Your task to perform on an android device: visit the assistant section in the google photos Image 0: 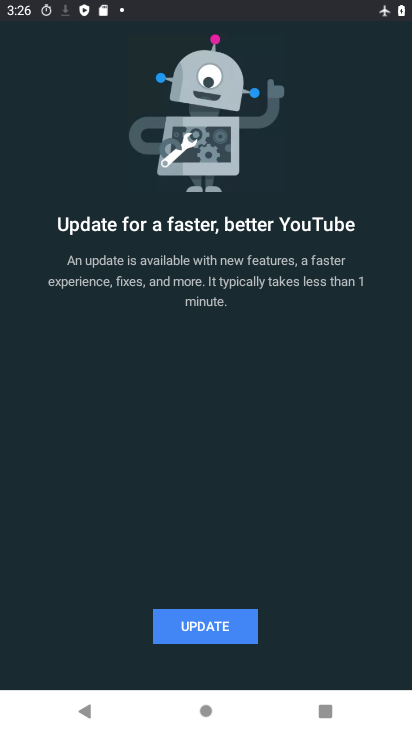
Step 0: press back button
Your task to perform on an android device: visit the assistant section in the google photos Image 1: 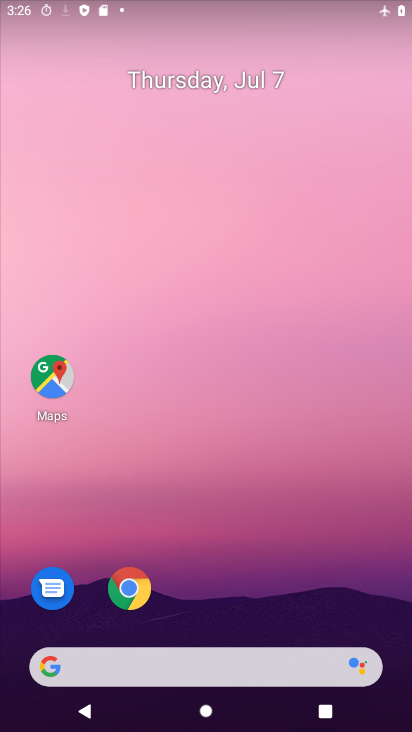
Step 1: drag from (297, 679) to (149, 0)
Your task to perform on an android device: visit the assistant section in the google photos Image 2: 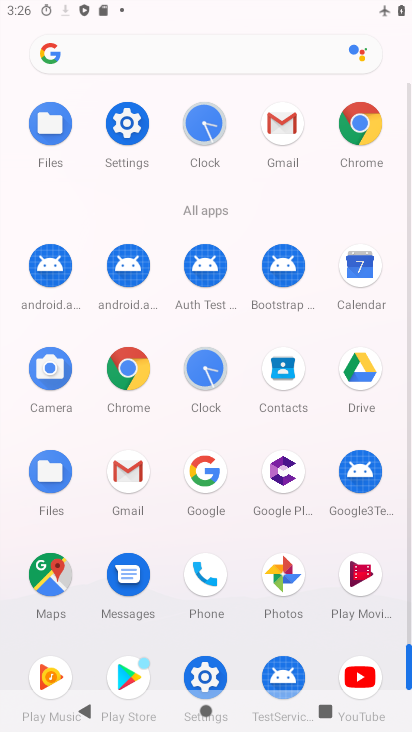
Step 2: click (280, 571)
Your task to perform on an android device: visit the assistant section in the google photos Image 3: 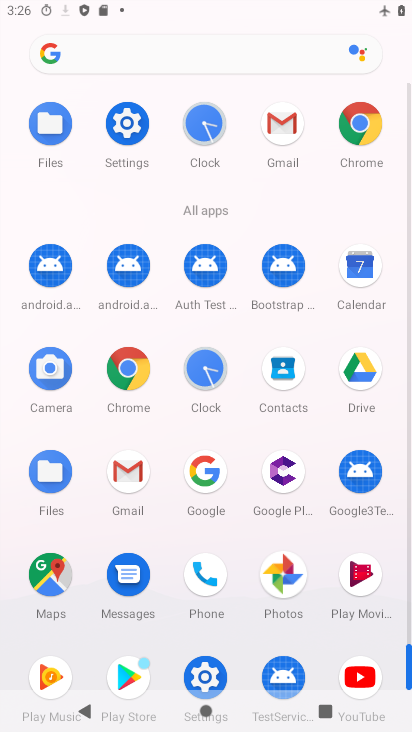
Step 3: click (280, 570)
Your task to perform on an android device: visit the assistant section in the google photos Image 4: 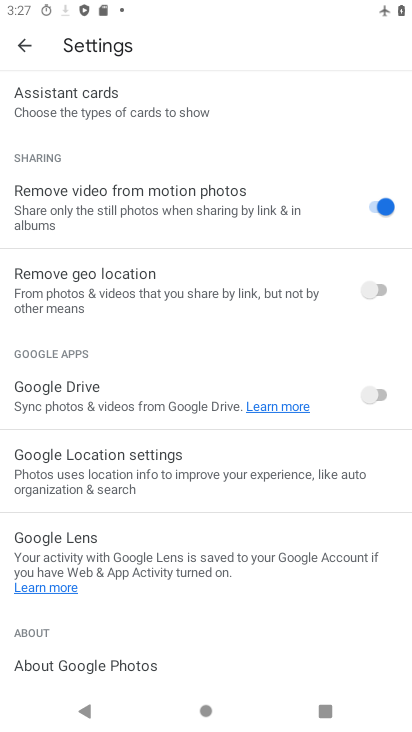
Step 4: drag from (75, 561) to (207, 229)
Your task to perform on an android device: visit the assistant section in the google photos Image 5: 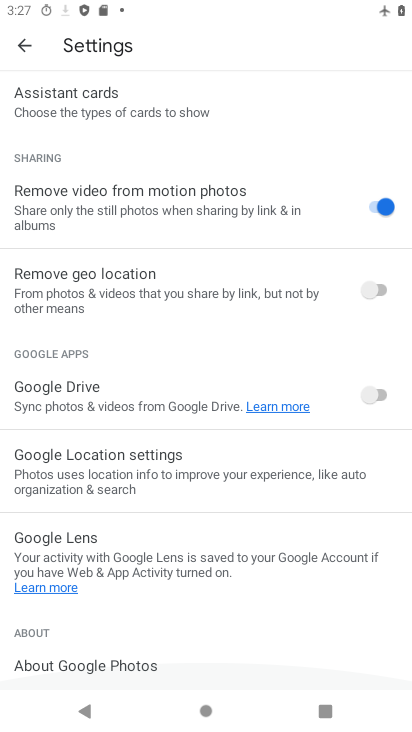
Step 5: drag from (198, 470) to (235, 280)
Your task to perform on an android device: visit the assistant section in the google photos Image 6: 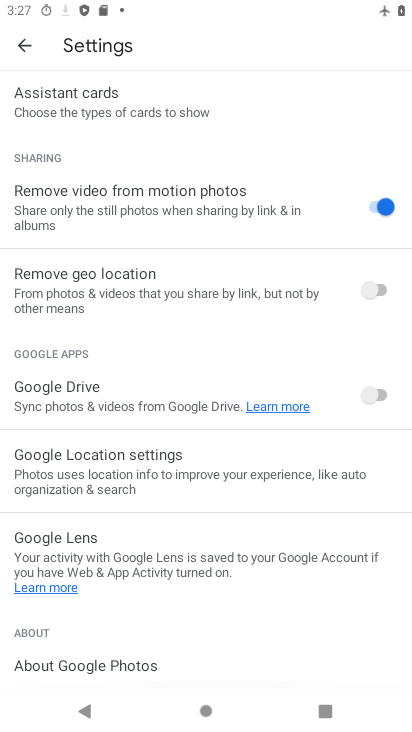
Step 6: drag from (253, 426) to (275, 341)
Your task to perform on an android device: visit the assistant section in the google photos Image 7: 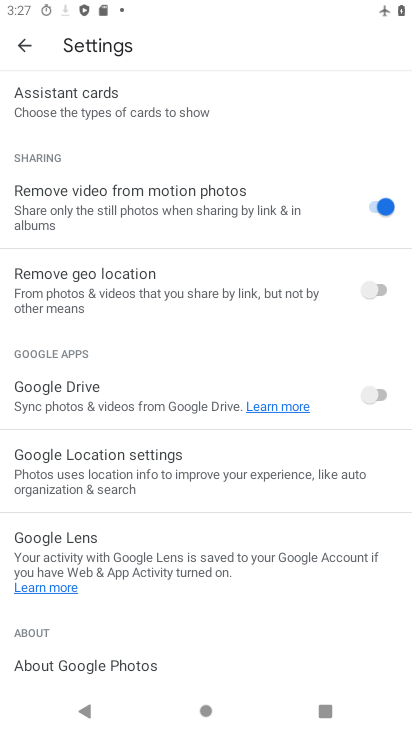
Step 7: click (19, 48)
Your task to perform on an android device: visit the assistant section in the google photos Image 8: 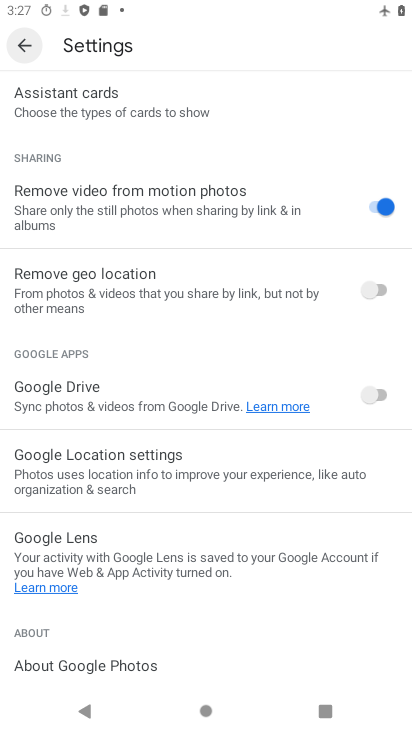
Step 8: click (19, 48)
Your task to perform on an android device: visit the assistant section in the google photos Image 9: 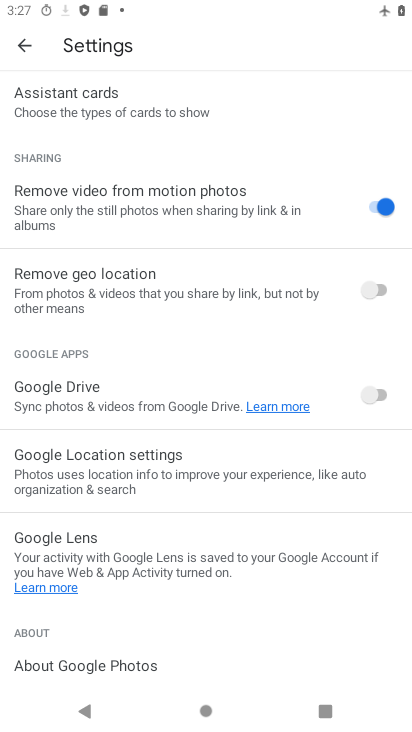
Step 9: click (19, 48)
Your task to perform on an android device: visit the assistant section in the google photos Image 10: 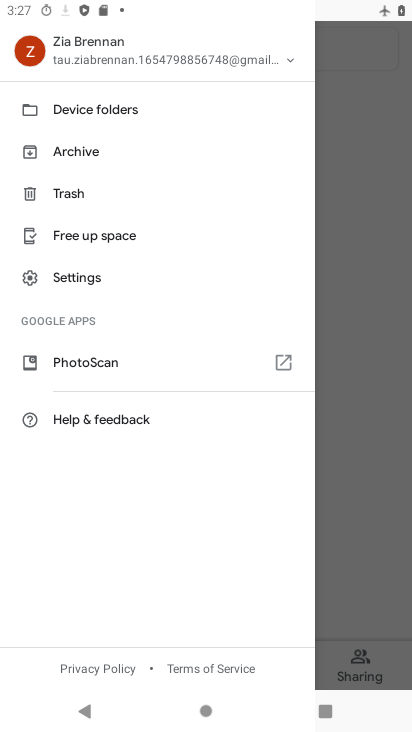
Step 10: click (400, 277)
Your task to perform on an android device: visit the assistant section in the google photos Image 11: 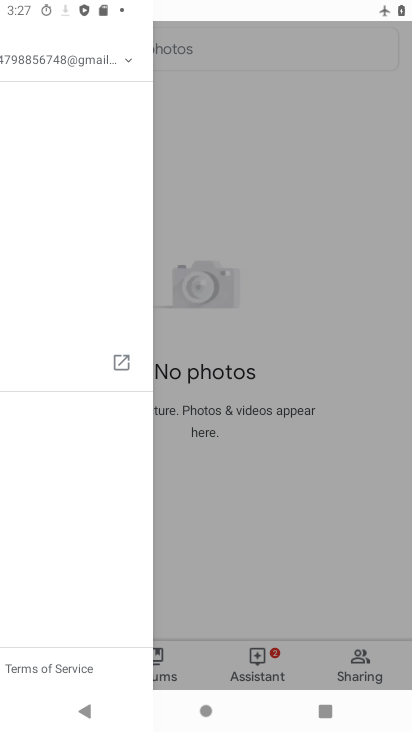
Step 11: click (397, 280)
Your task to perform on an android device: visit the assistant section in the google photos Image 12: 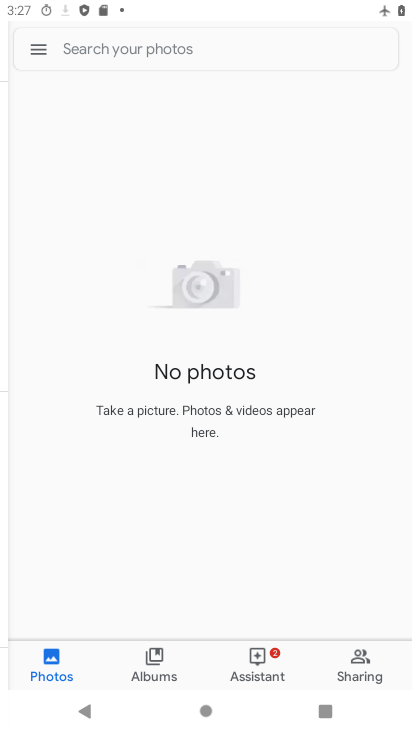
Step 12: click (392, 281)
Your task to perform on an android device: visit the assistant section in the google photos Image 13: 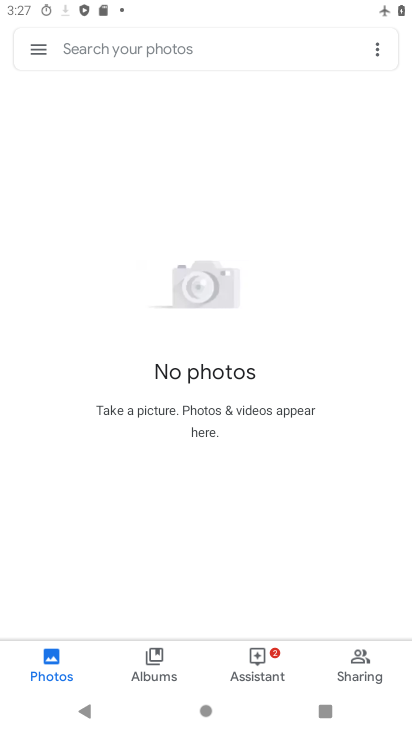
Step 13: click (278, 660)
Your task to perform on an android device: visit the assistant section in the google photos Image 14: 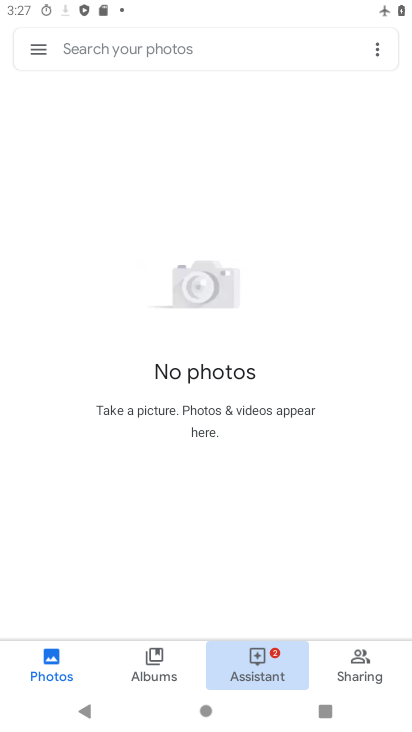
Step 14: click (280, 652)
Your task to perform on an android device: visit the assistant section in the google photos Image 15: 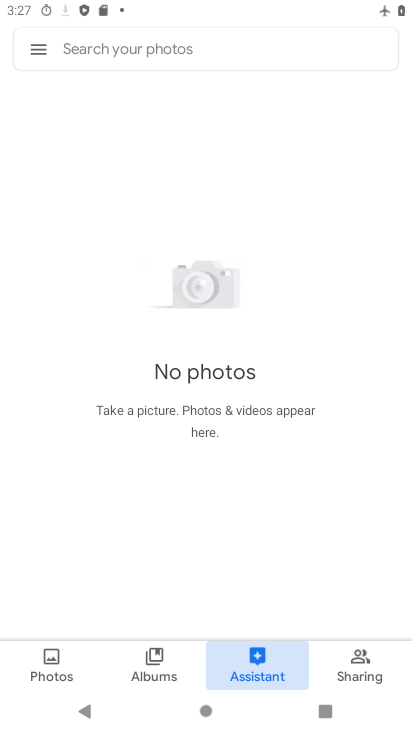
Step 15: click (276, 643)
Your task to perform on an android device: visit the assistant section in the google photos Image 16: 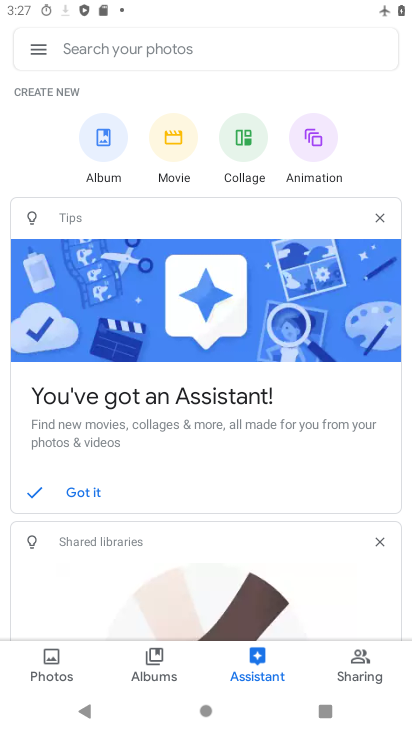
Step 16: task complete